Your task to perform on an android device: open app "Google Play Music" Image 0: 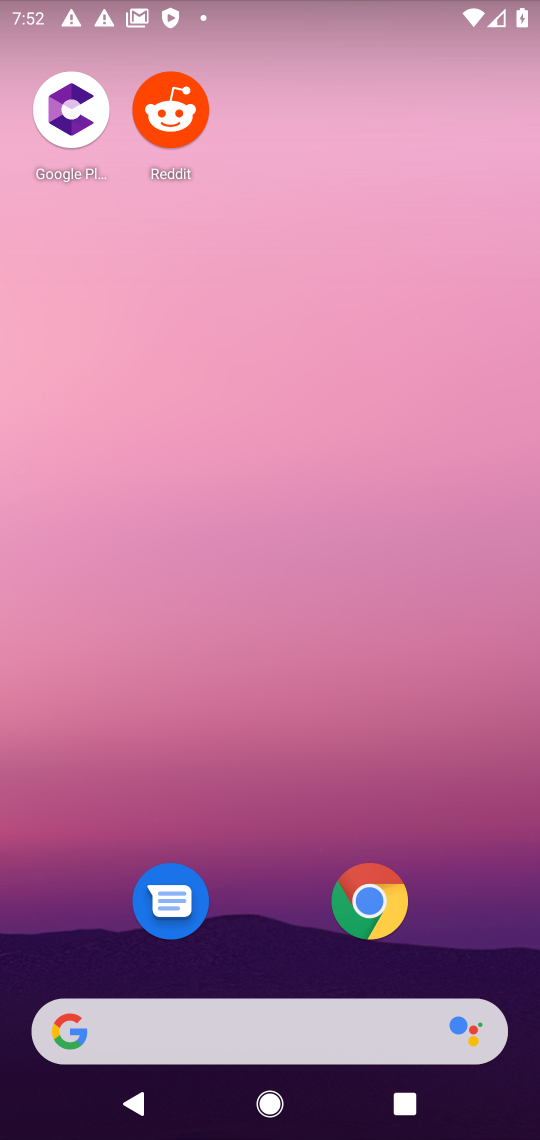
Step 0: drag from (307, 959) to (73, 188)
Your task to perform on an android device: open app "Google Play Music" Image 1: 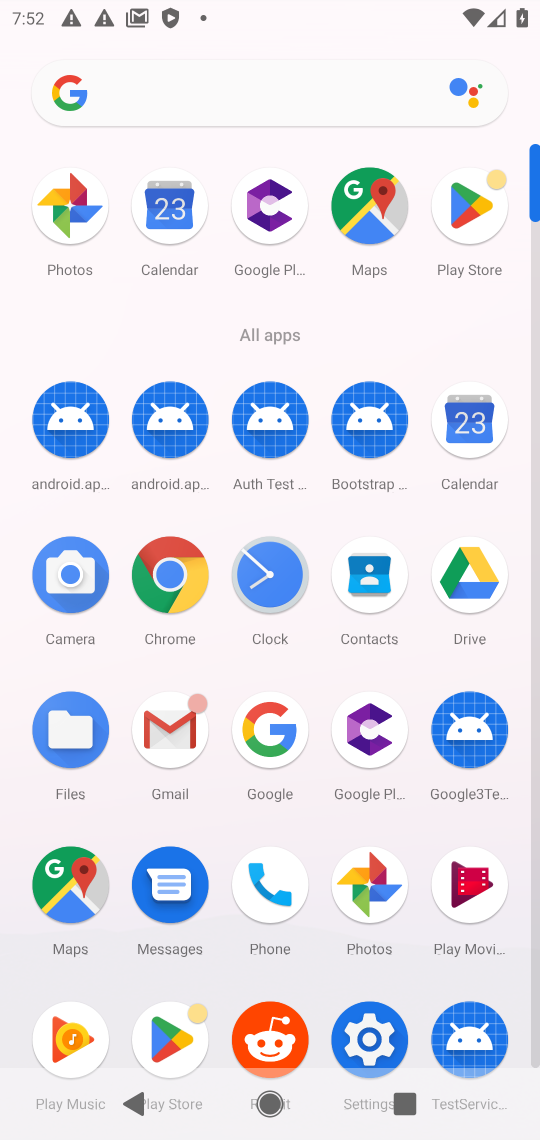
Step 1: click (489, 197)
Your task to perform on an android device: open app "Google Play Music" Image 2: 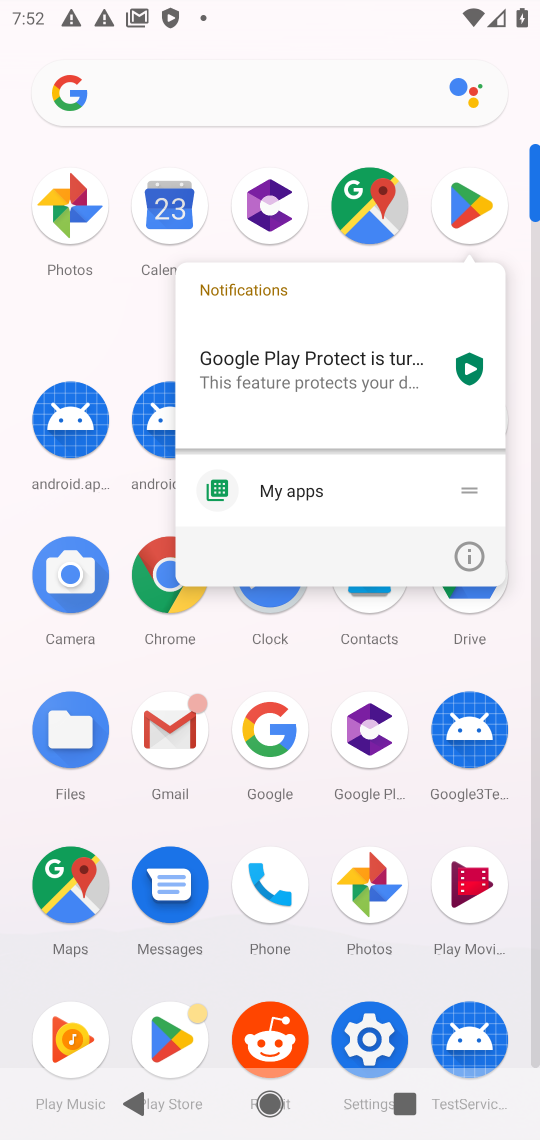
Step 2: click (473, 204)
Your task to perform on an android device: open app "Google Play Music" Image 3: 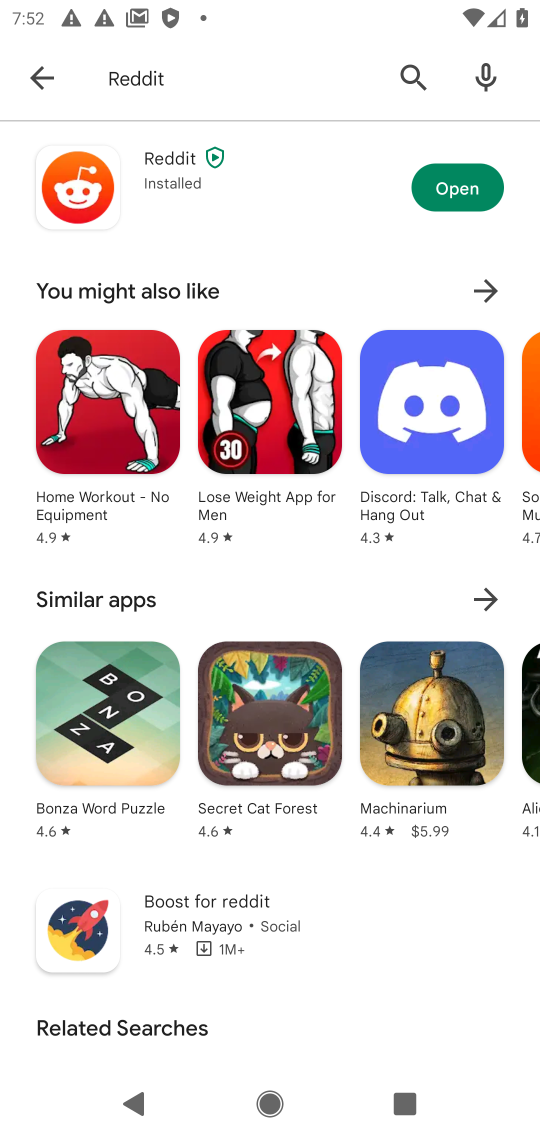
Step 3: press back button
Your task to perform on an android device: open app "Google Play Music" Image 4: 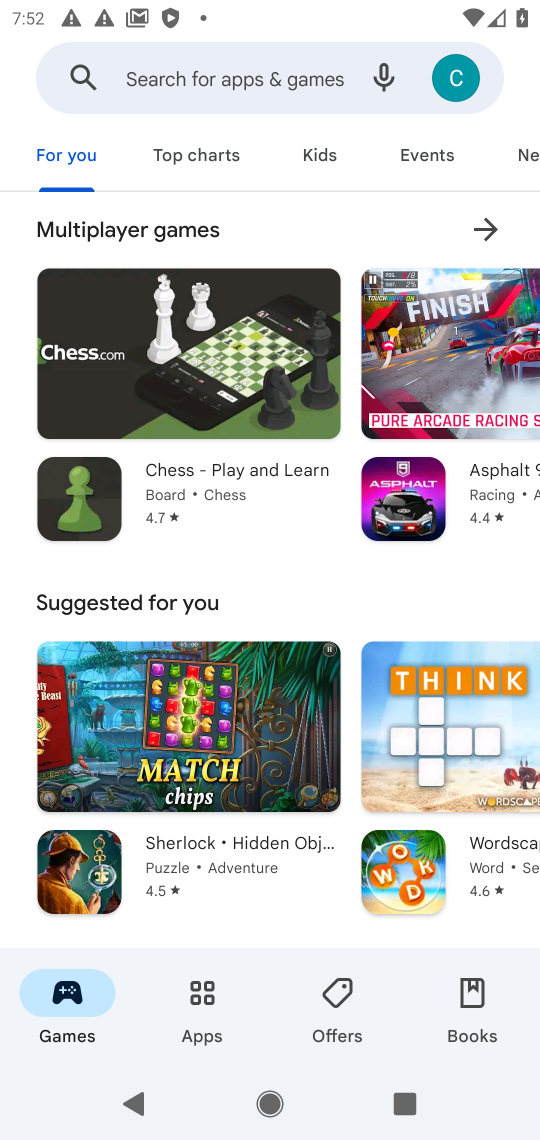
Step 4: click (222, 85)
Your task to perform on an android device: open app "Google Play Music" Image 5: 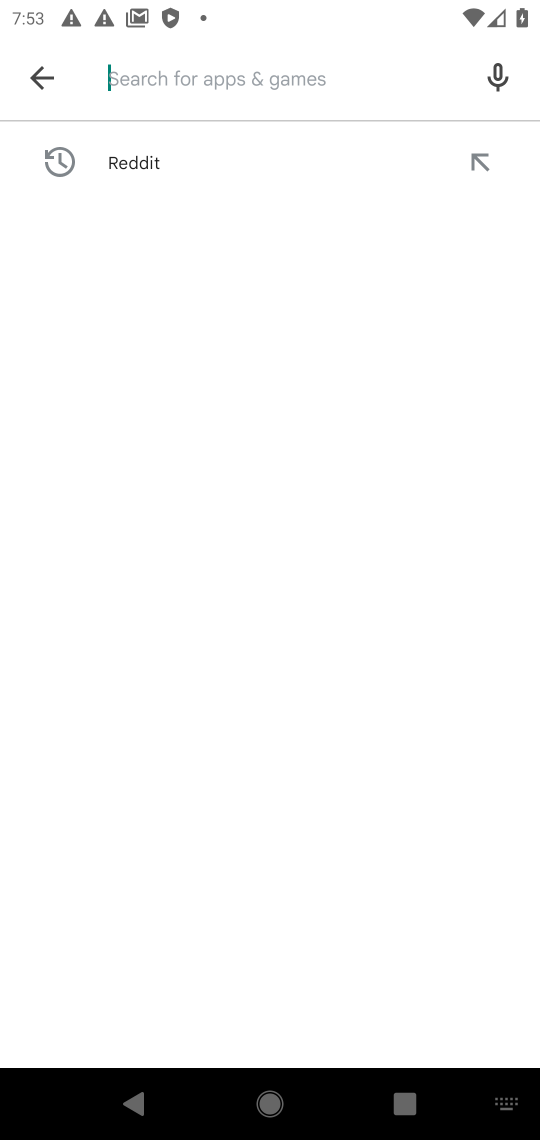
Step 5: type "Google Play Music"
Your task to perform on an android device: open app "Google Play Music" Image 6: 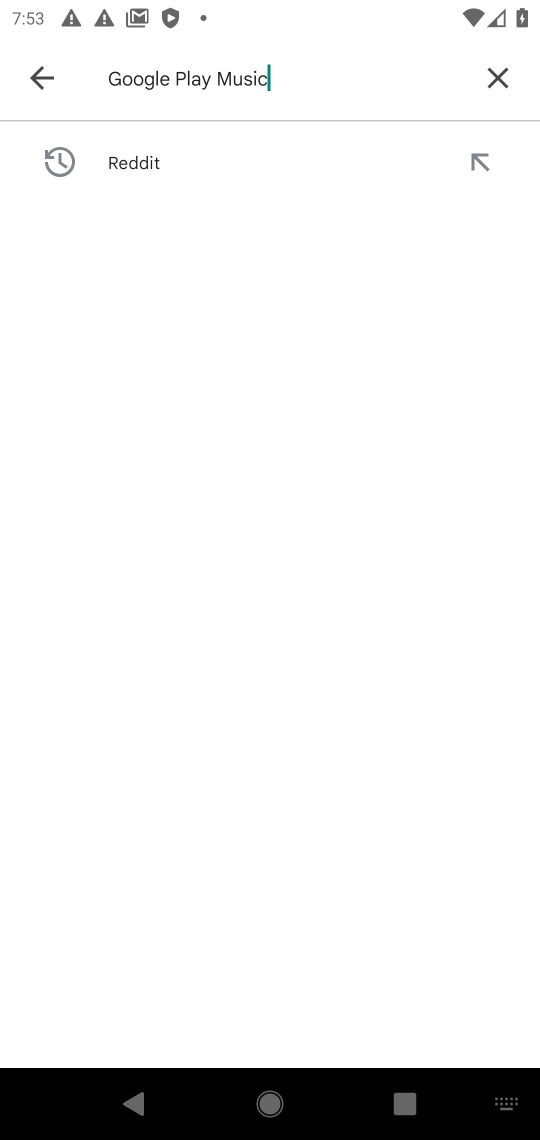
Step 6: press enter
Your task to perform on an android device: open app "Google Play Music" Image 7: 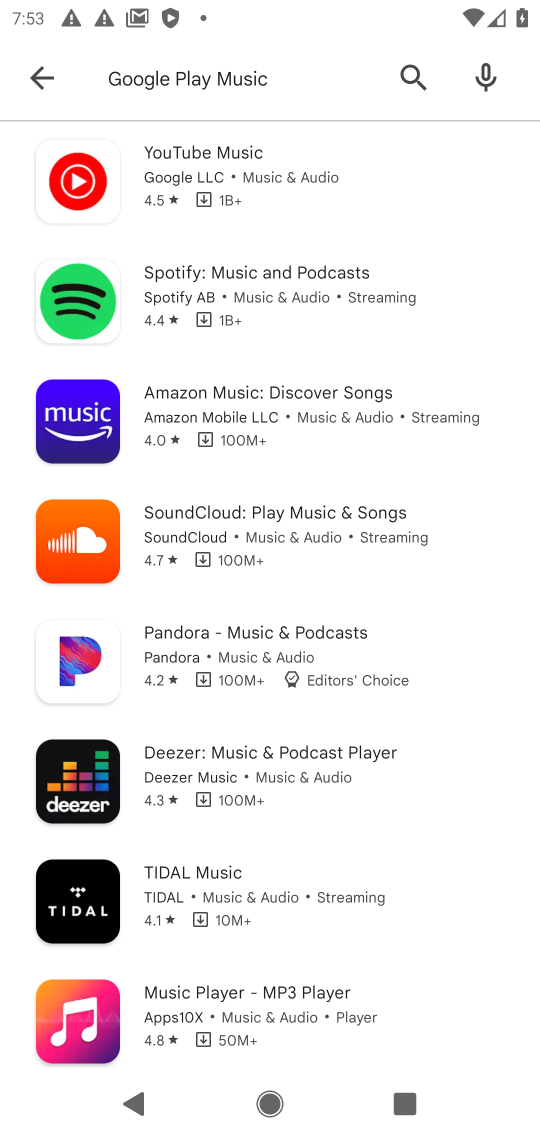
Step 7: task complete